Your task to perform on an android device: Open ESPN.com Image 0: 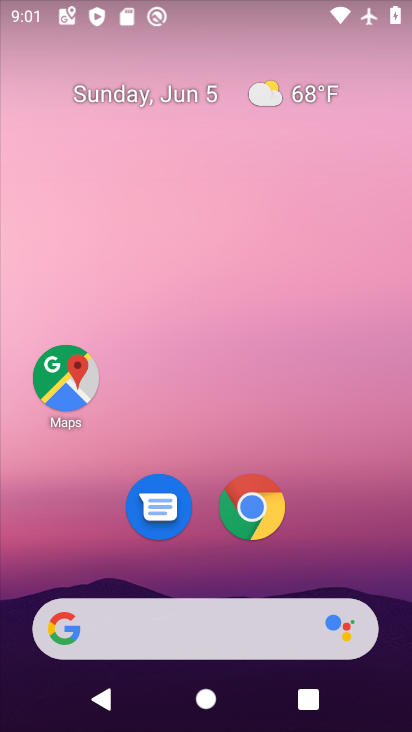
Step 0: drag from (189, 582) to (290, 1)
Your task to perform on an android device: Open ESPN.com Image 1: 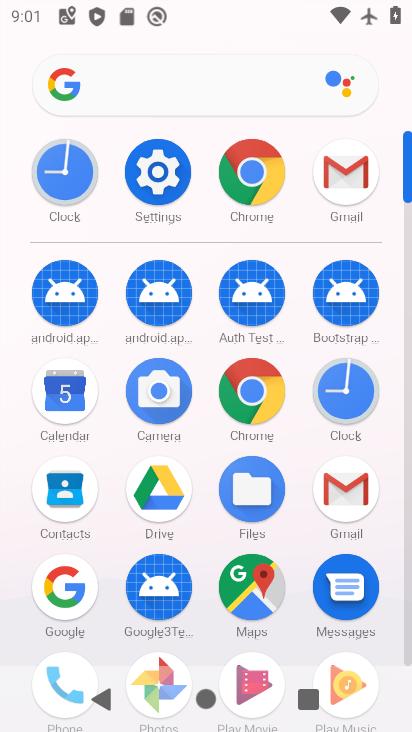
Step 1: click (257, 406)
Your task to perform on an android device: Open ESPN.com Image 2: 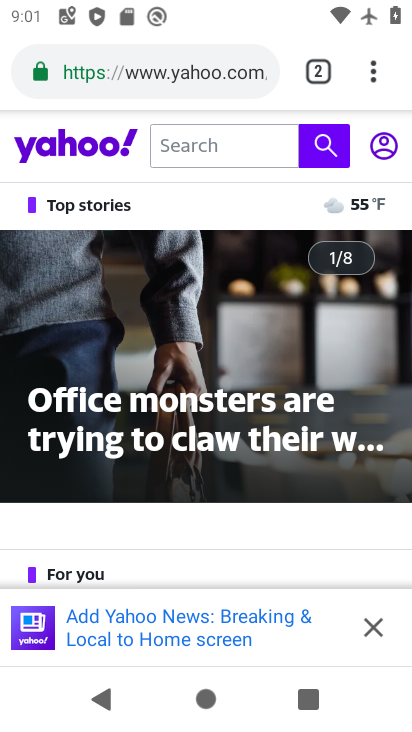
Step 2: click (149, 64)
Your task to perform on an android device: Open ESPN.com Image 3: 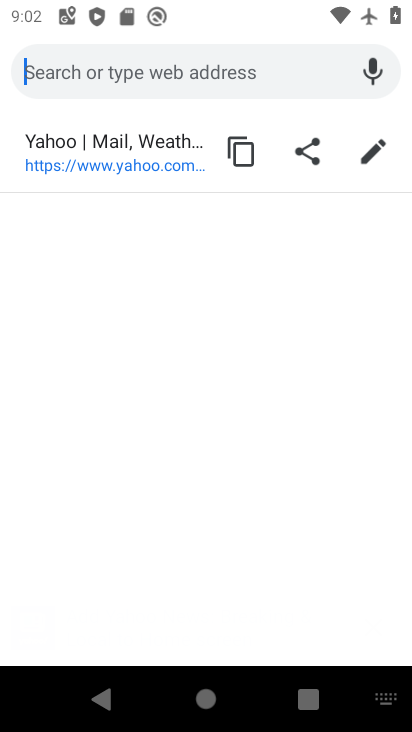
Step 3: type "ESPN.com"
Your task to perform on an android device: Open ESPN.com Image 4: 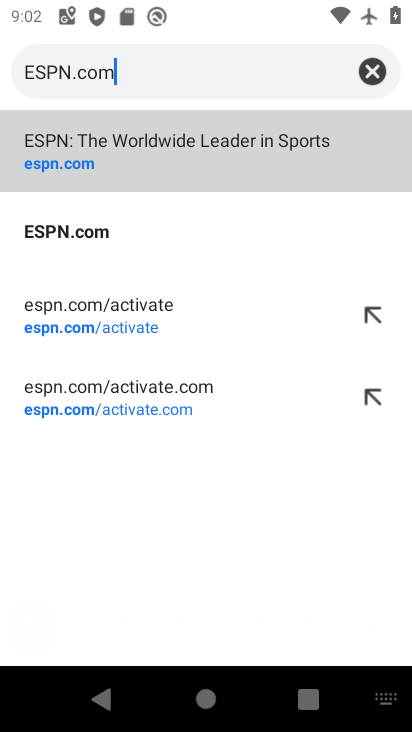
Step 4: click (161, 158)
Your task to perform on an android device: Open ESPN.com Image 5: 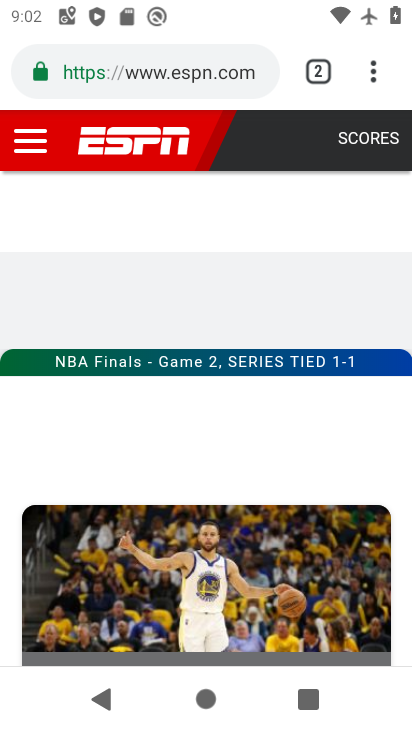
Step 5: task complete